Your task to perform on an android device: read, delete, or share a saved page in the chrome app Image 0: 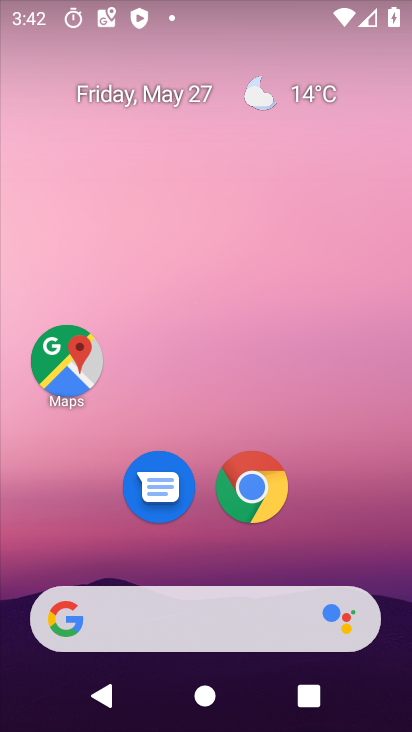
Step 0: click (247, 488)
Your task to perform on an android device: read, delete, or share a saved page in the chrome app Image 1: 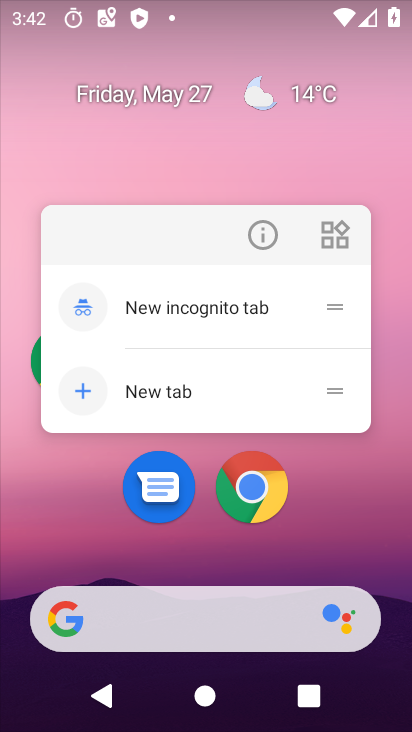
Step 1: click (336, 502)
Your task to perform on an android device: read, delete, or share a saved page in the chrome app Image 2: 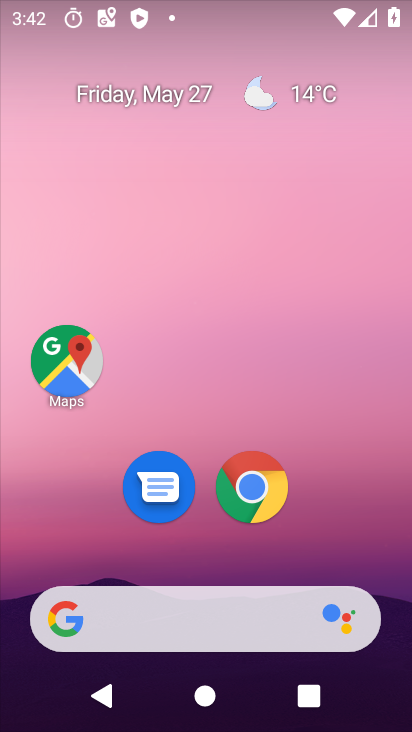
Step 2: drag from (341, 542) to (338, 94)
Your task to perform on an android device: read, delete, or share a saved page in the chrome app Image 3: 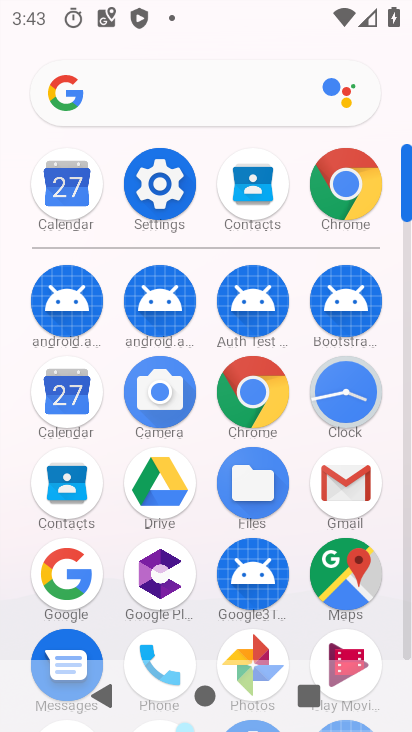
Step 3: click (249, 395)
Your task to perform on an android device: read, delete, or share a saved page in the chrome app Image 4: 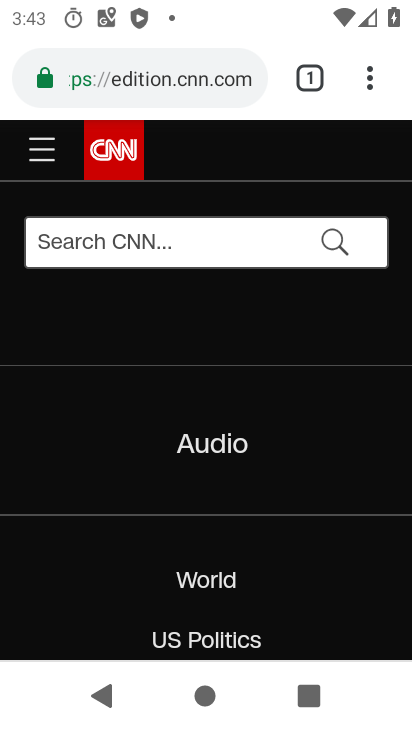
Step 4: click (367, 72)
Your task to perform on an android device: read, delete, or share a saved page in the chrome app Image 5: 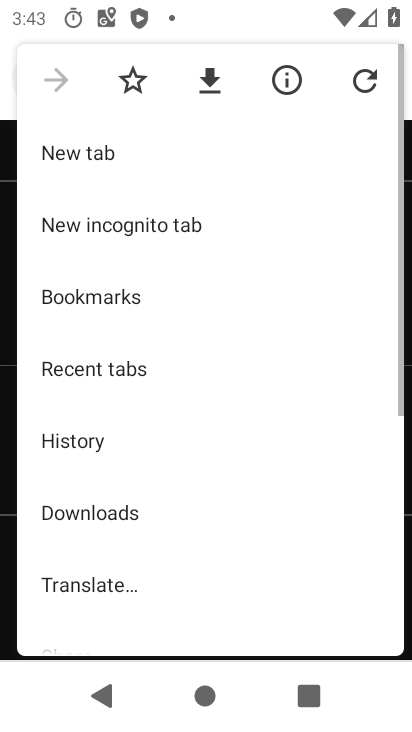
Step 5: drag from (197, 539) to (213, 116)
Your task to perform on an android device: read, delete, or share a saved page in the chrome app Image 6: 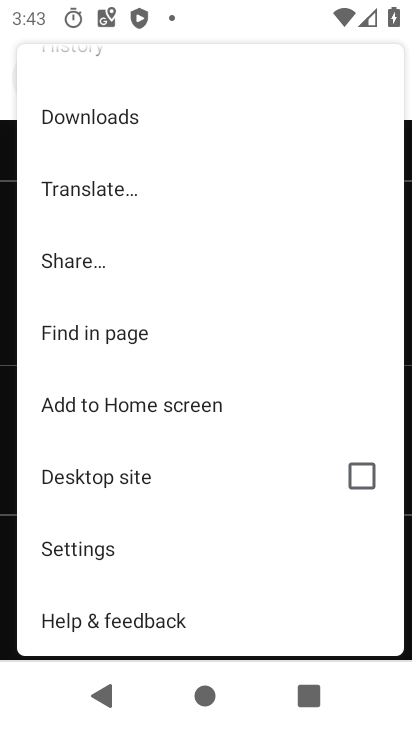
Step 6: drag from (126, 545) to (207, 153)
Your task to perform on an android device: read, delete, or share a saved page in the chrome app Image 7: 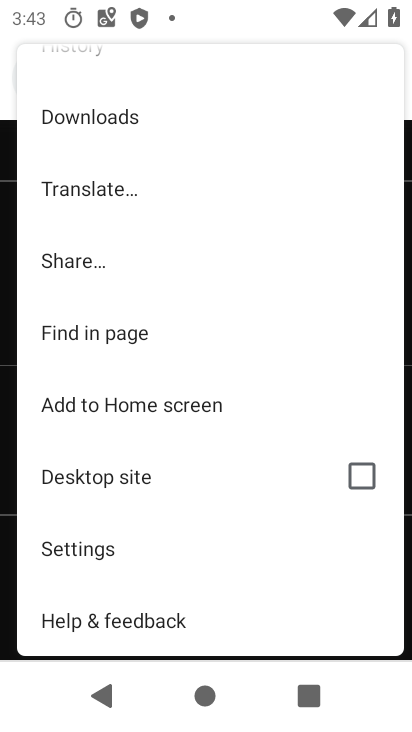
Step 7: drag from (110, 226) to (107, 454)
Your task to perform on an android device: read, delete, or share a saved page in the chrome app Image 8: 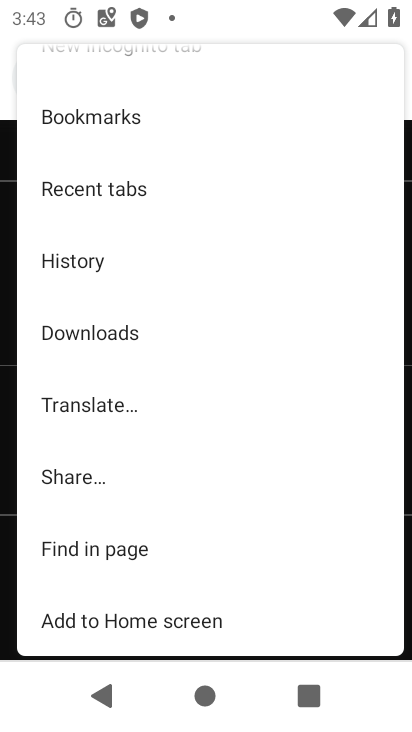
Step 8: click (96, 345)
Your task to perform on an android device: read, delete, or share a saved page in the chrome app Image 9: 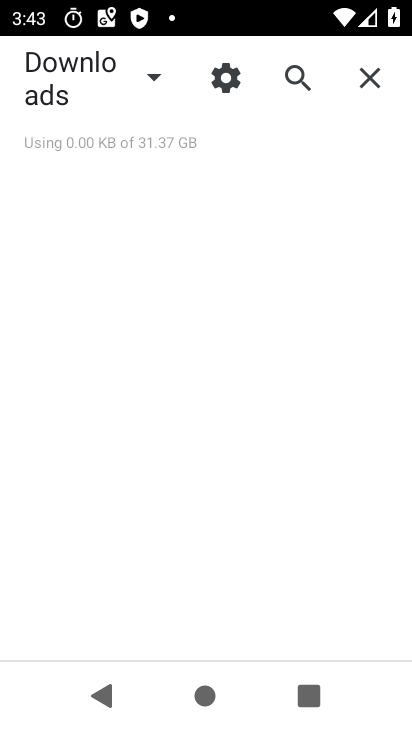
Step 9: task complete